Your task to perform on an android device: toggle location history Image 0: 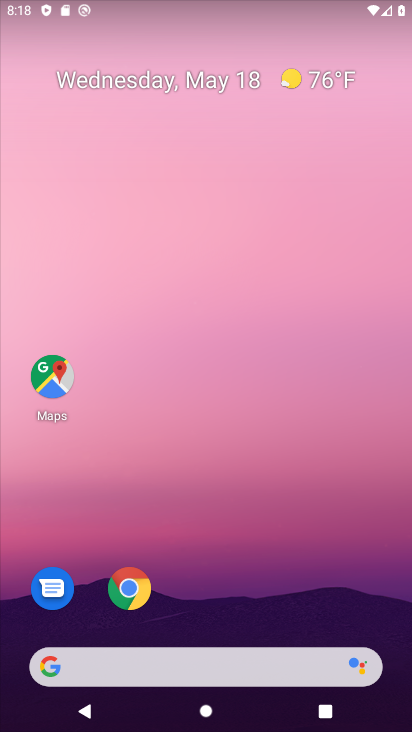
Step 0: drag from (342, 588) to (344, 292)
Your task to perform on an android device: toggle location history Image 1: 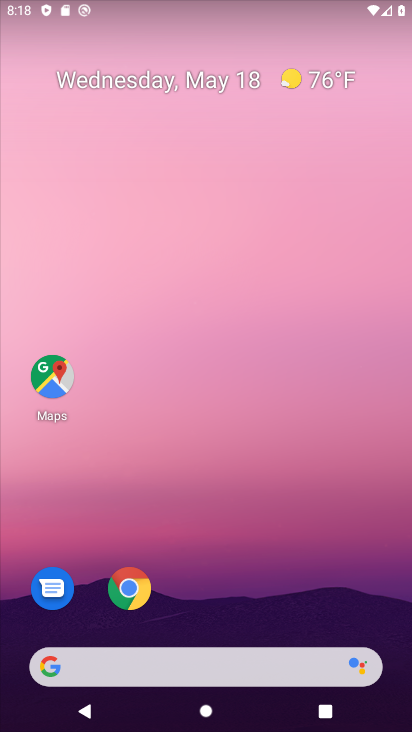
Step 1: drag from (210, 593) to (270, 159)
Your task to perform on an android device: toggle location history Image 2: 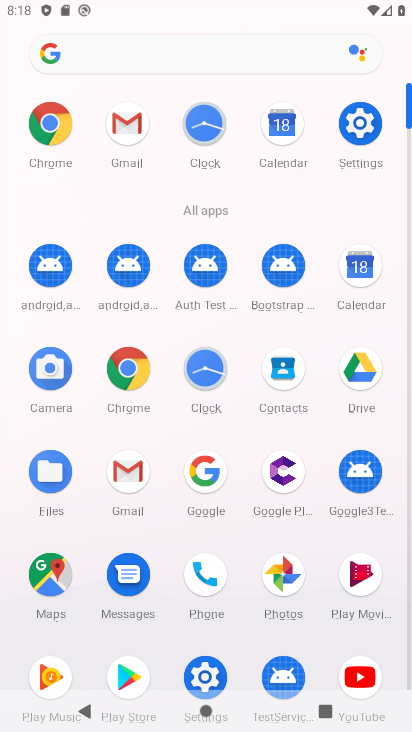
Step 2: click (361, 154)
Your task to perform on an android device: toggle location history Image 3: 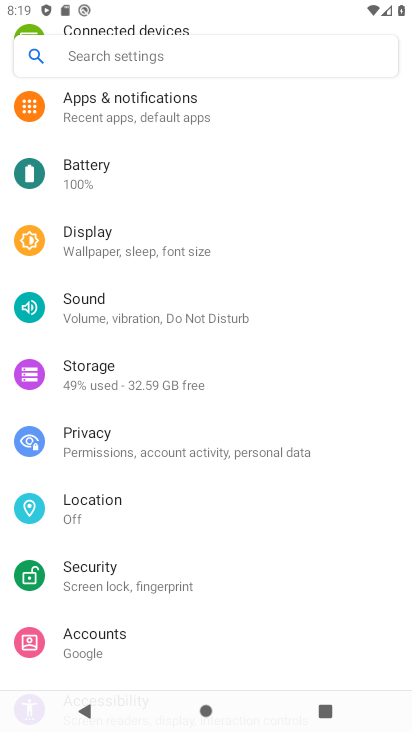
Step 3: click (83, 479)
Your task to perform on an android device: toggle location history Image 4: 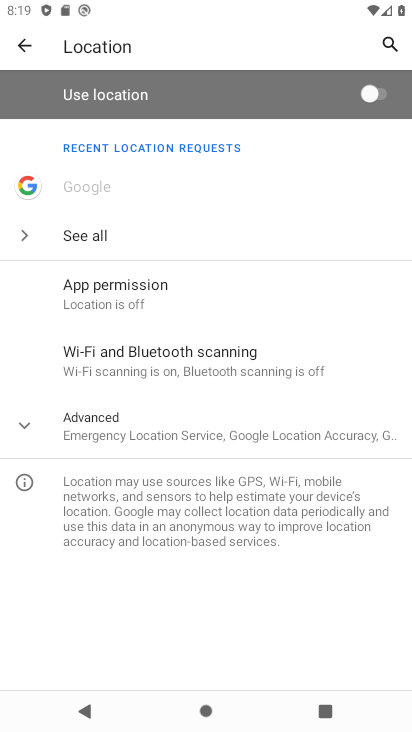
Step 4: click (206, 443)
Your task to perform on an android device: toggle location history Image 5: 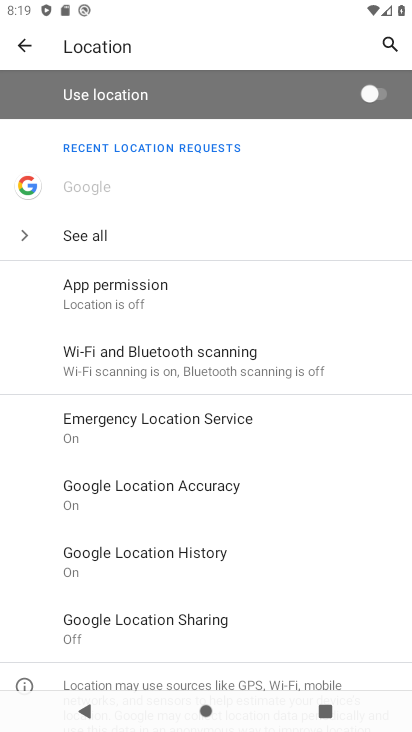
Step 5: click (215, 548)
Your task to perform on an android device: toggle location history Image 6: 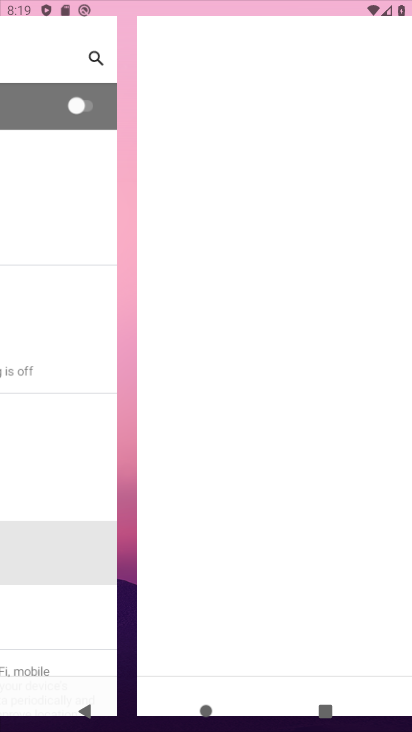
Step 6: click (215, 548)
Your task to perform on an android device: toggle location history Image 7: 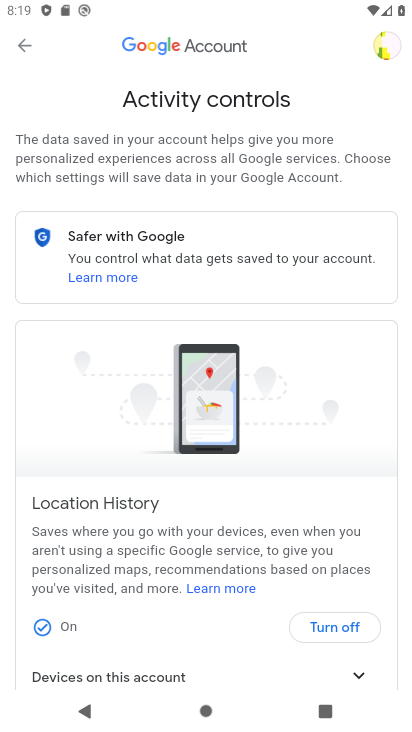
Step 7: click (315, 637)
Your task to perform on an android device: toggle location history Image 8: 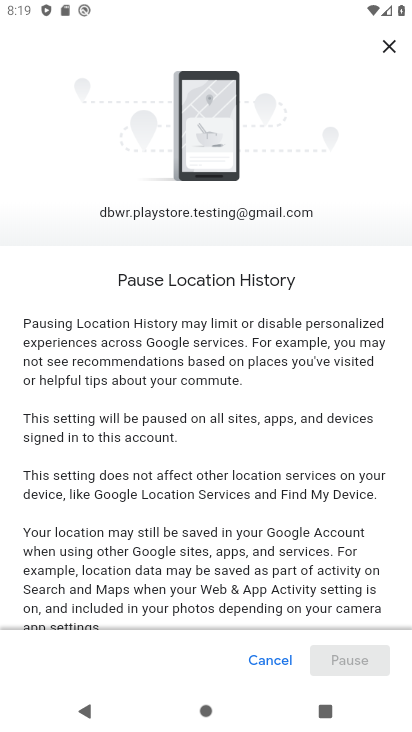
Step 8: drag from (313, 494) to (352, 178)
Your task to perform on an android device: toggle location history Image 9: 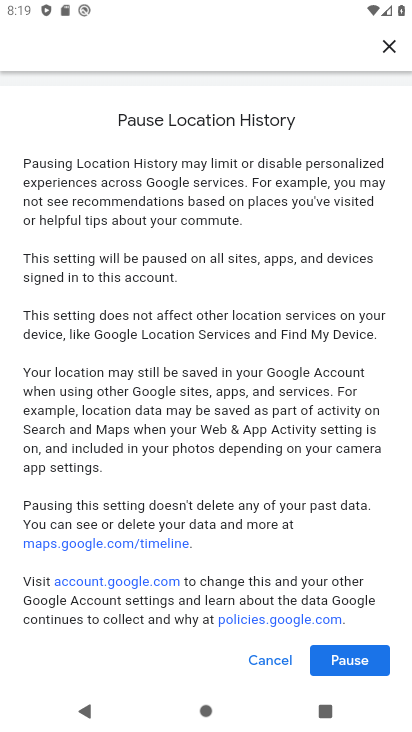
Step 9: click (348, 661)
Your task to perform on an android device: toggle location history Image 10: 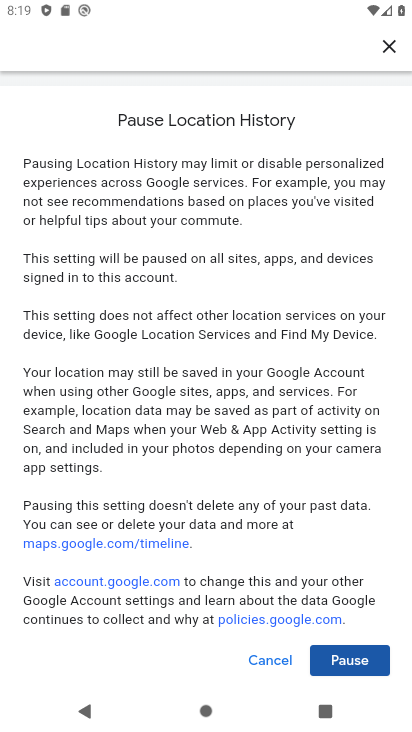
Step 10: task complete